Your task to perform on an android device: Open Google Chrome and open the bookmarks view Image 0: 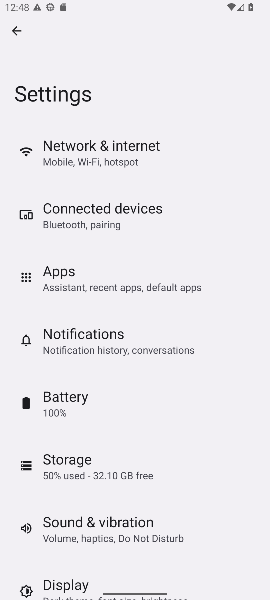
Step 0: press home button
Your task to perform on an android device: Open Google Chrome and open the bookmarks view Image 1: 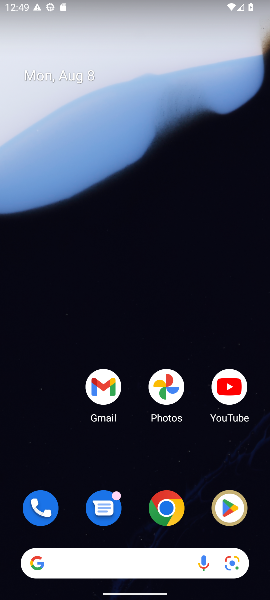
Step 1: click (163, 506)
Your task to perform on an android device: Open Google Chrome and open the bookmarks view Image 2: 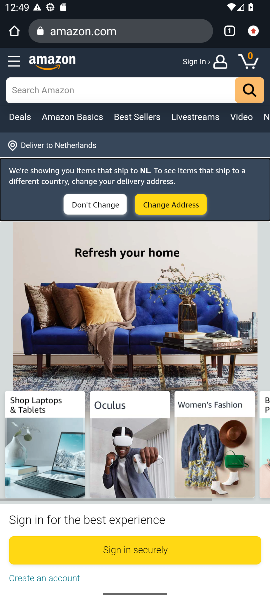
Step 2: click (254, 28)
Your task to perform on an android device: Open Google Chrome and open the bookmarks view Image 3: 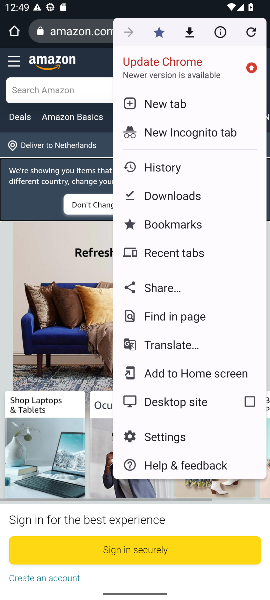
Step 3: click (179, 226)
Your task to perform on an android device: Open Google Chrome and open the bookmarks view Image 4: 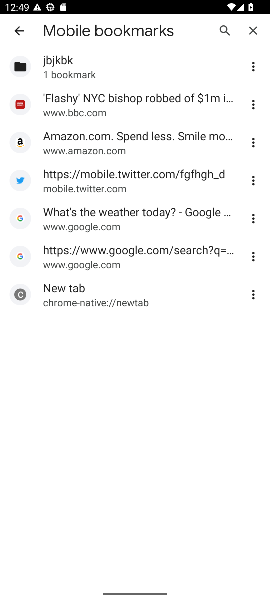
Step 4: task complete